Your task to perform on an android device: open chrome and create a bookmark for the current page Image 0: 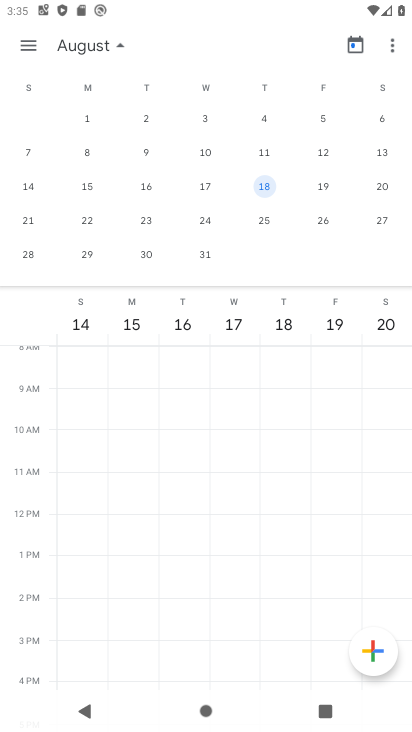
Step 0: drag from (355, 65) to (217, 6)
Your task to perform on an android device: open chrome and create a bookmark for the current page Image 1: 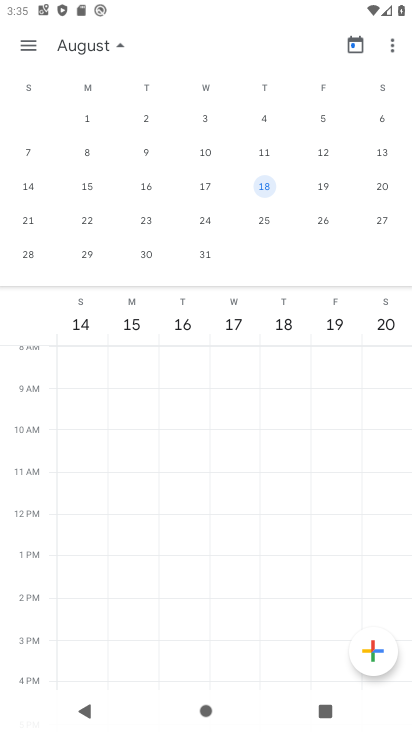
Step 1: press home button
Your task to perform on an android device: open chrome and create a bookmark for the current page Image 2: 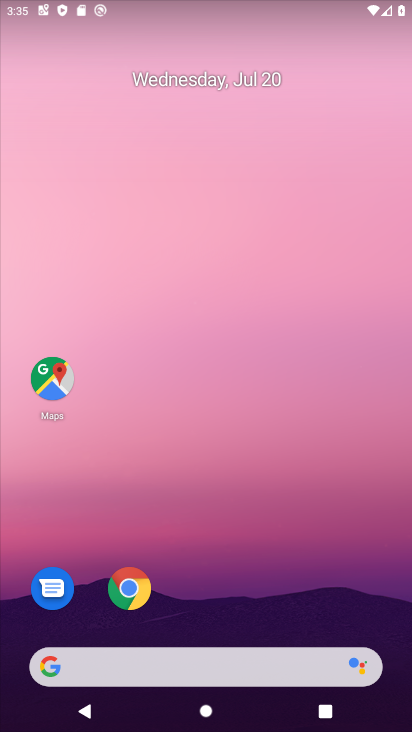
Step 2: drag from (285, 587) to (307, 82)
Your task to perform on an android device: open chrome and create a bookmark for the current page Image 3: 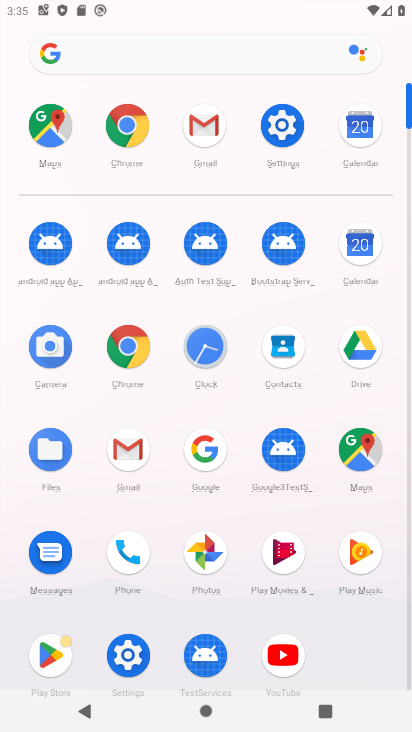
Step 3: click (376, 249)
Your task to perform on an android device: open chrome and create a bookmark for the current page Image 4: 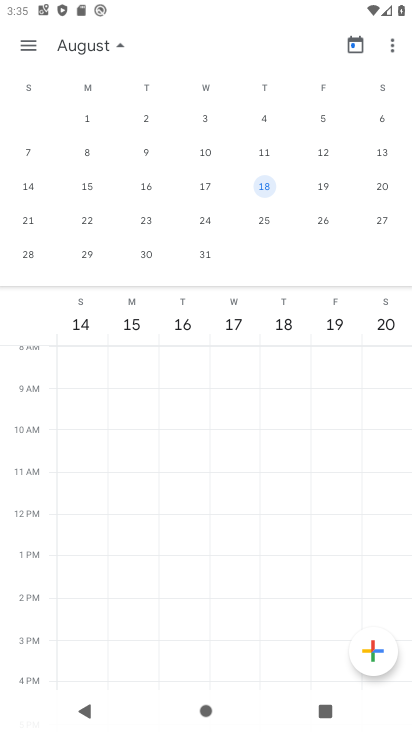
Step 4: click (390, 41)
Your task to perform on an android device: open chrome and create a bookmark for the current page Image 5: 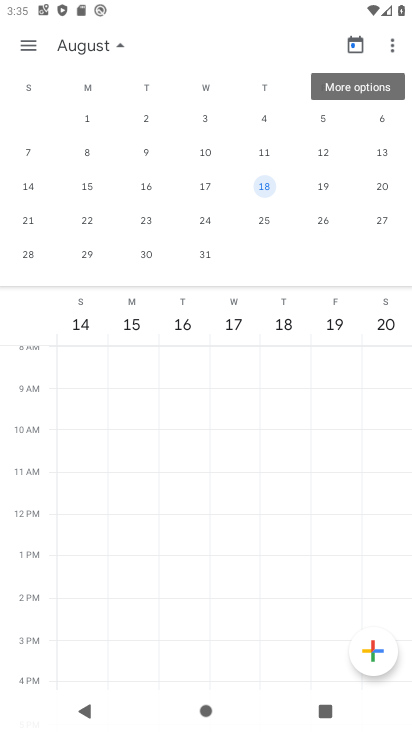
Step 5: click (392, 41)
Your task to perform on an android device: open chrome and create a bookmark for the current page Image 6: 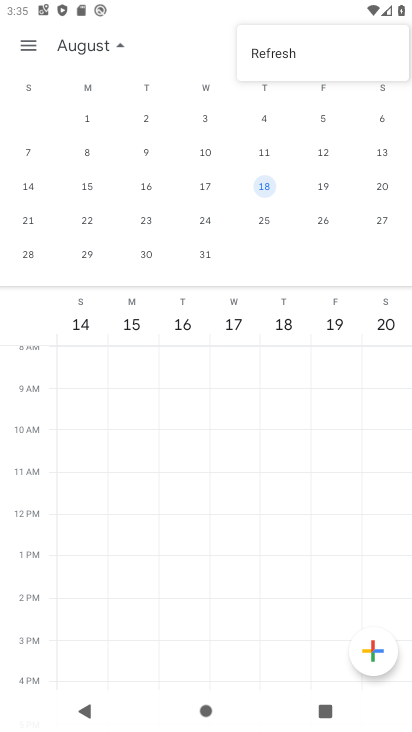
Step 6: click (286, 470)
Your task to perform on an android device: open chrome and create a bookmark for the current page Image 7: 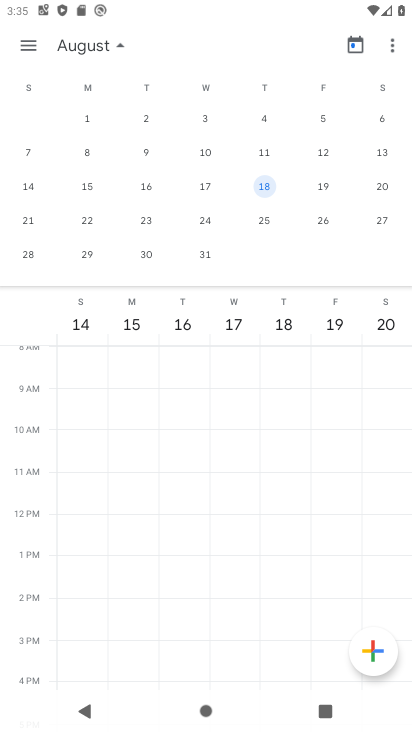
Step 7: click (393, 43)
Your task to perform on an android device: open chrome and create a bookmark for the current page Image 8: 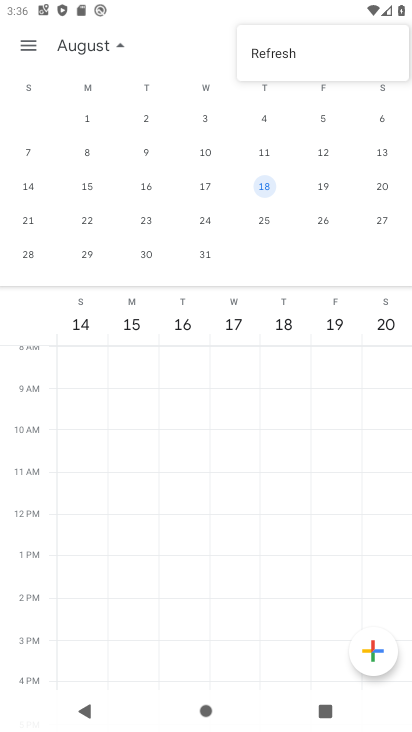
Step 8: press home button
Your task to perform on an android device: open chrome and create a bookmark for the current page Image 9: 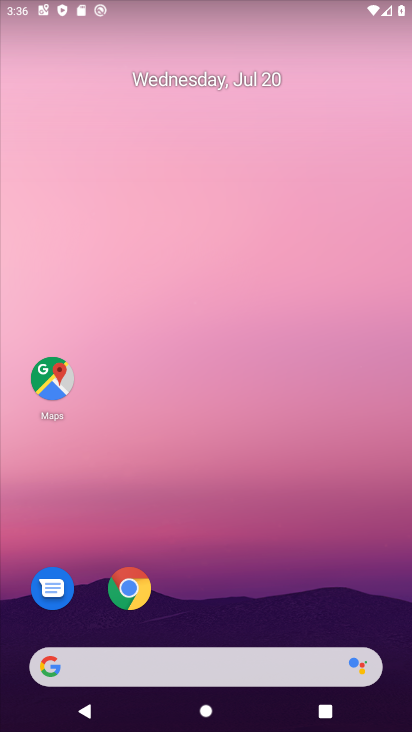
Step 9: drag from (339, 538) to (172, 66)
Your task to perform on an android device: open chrome and create a bookmark for the current page Image 10: 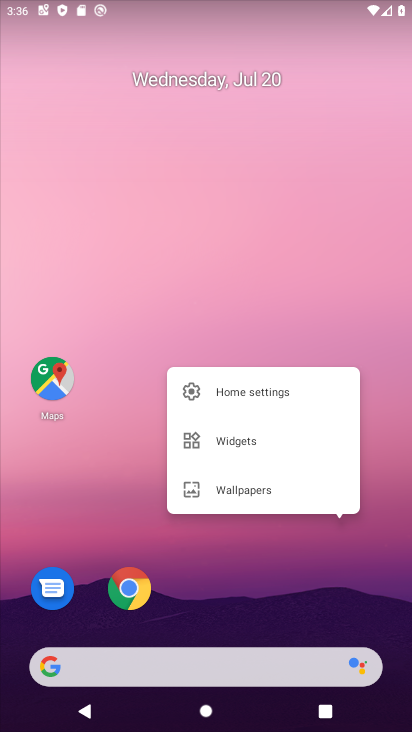
Step 10: click (383, 436)
Your task to perform on an android device: open chrome and create a bookmark for the current page Image 11: 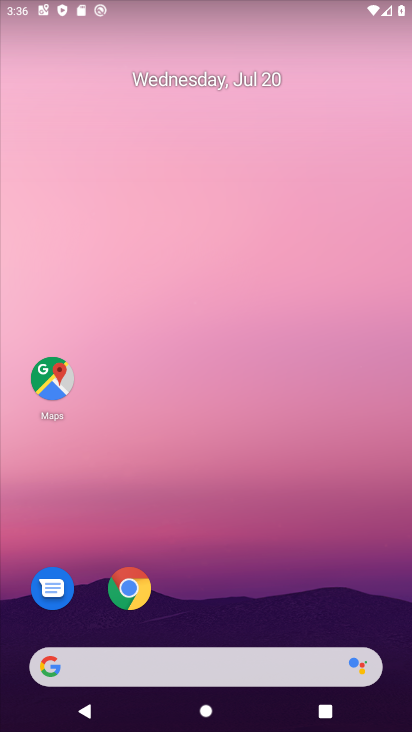
Step 11: drag from (333, 506) to (355, 1)
Your task to perform on an android device: open chrome and create a bookmark for the current page Image 12: 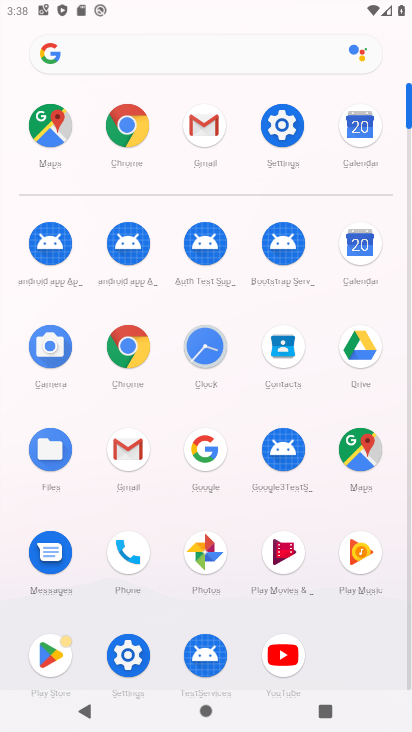
Step 12: click (133, 337)
Your task to perform on an android device: open chrome and create a bookmark for the current page Image 13: 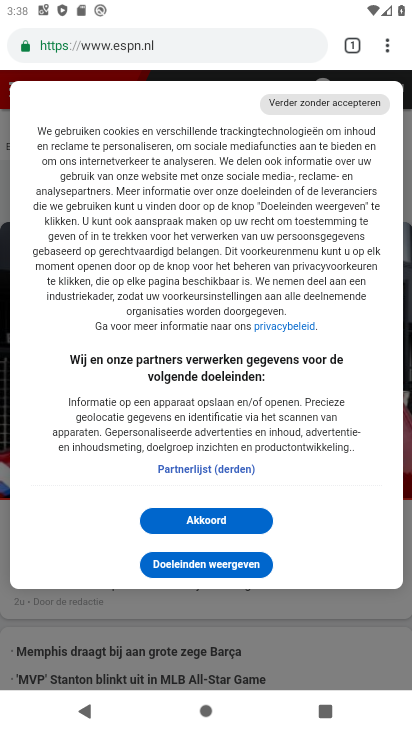
Step 13: click (385, 40)
Your task to perform on an android device: open chrome and create a bookmark for the current page Image 14: 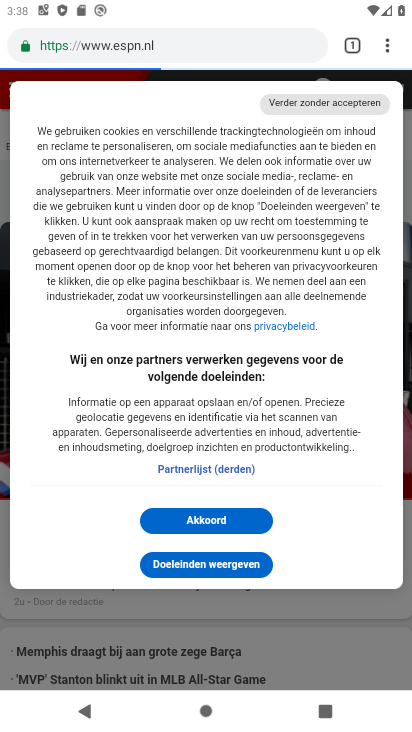
Step 14: drag from (385, 40) to (329, 34)
Your task to perform on an android device: open chrome and create a bookmark for the current page Image 15: 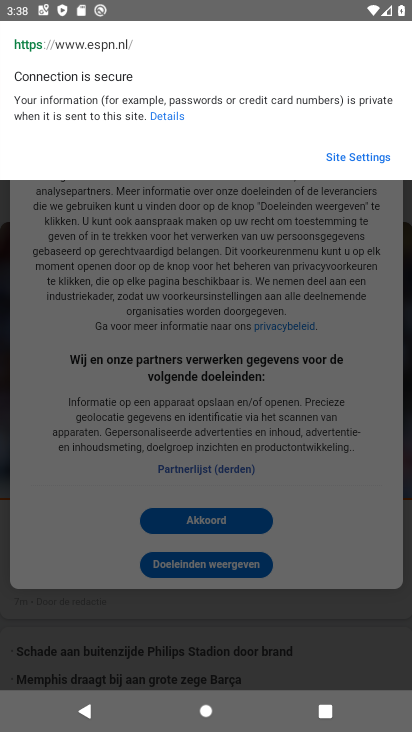
Step 15: click (333, 232)
Your task to perform on an android device: open chrome and create a bookmark for the current page Image 16: 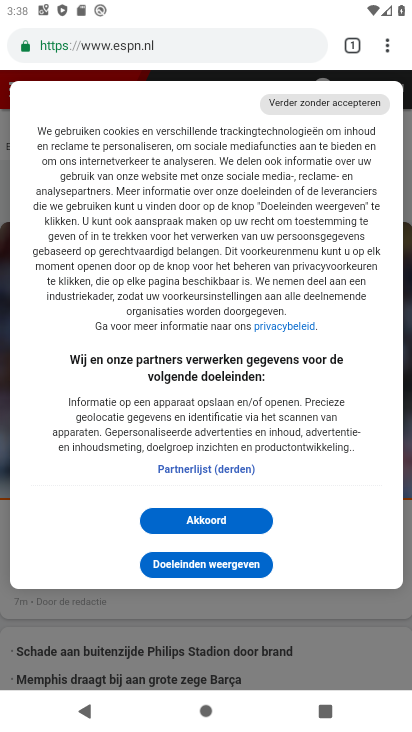
Step 16: drag from (395, 41) to (248, 38)
Your task to perform on an android device: open chrome and create a bookmark for the current page Image 17: 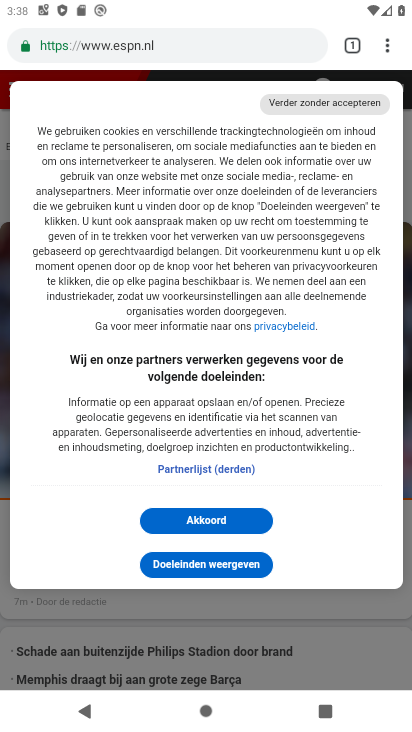
Step 17: click (244, 45)
Your task to perform on an android device: open chrome and create a bookmark for the current page Image 18: 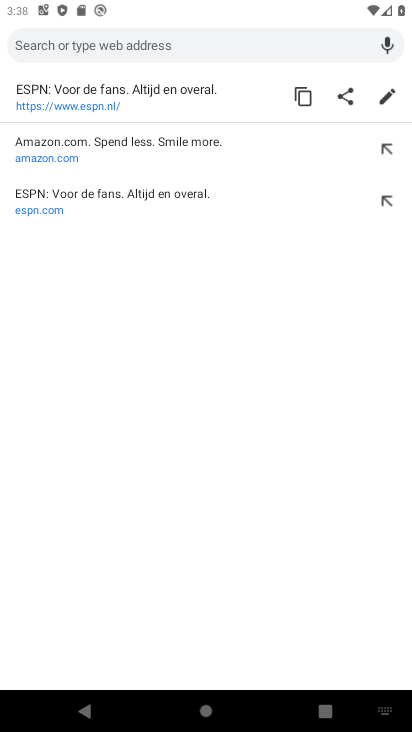
Step 18: task complete